Your task to perform on an android device: Search for seafood restaurants on Google Maps Image 0: 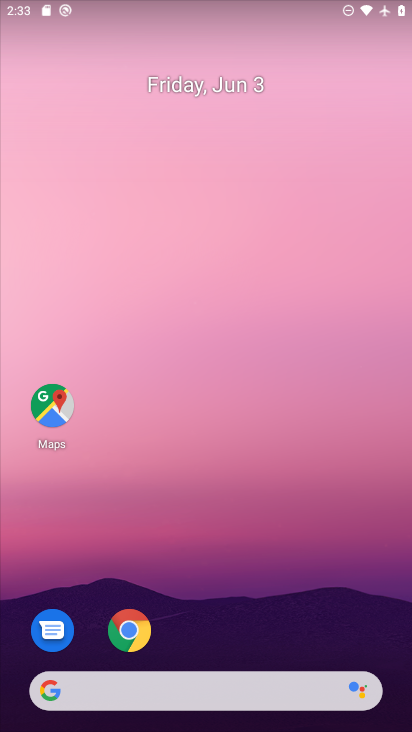
Step 0: drag from (195, 725) to (258, 37)
Your task to perform on an android device: Search for seafood restaurants on Google Maps Image 1: 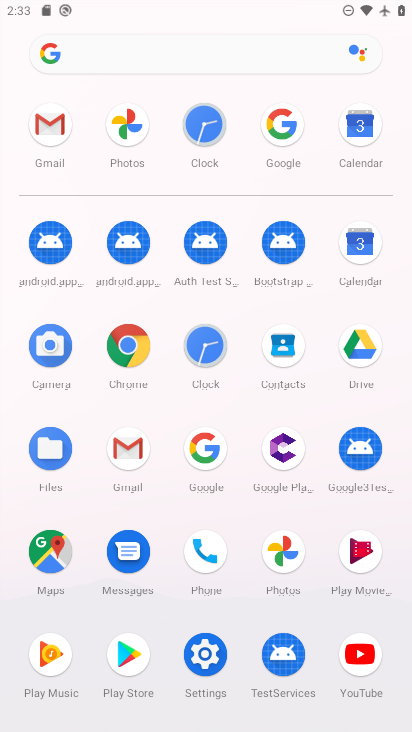
Step 1: click (44, 552)
Your task to perform on an android device: Search for seafood restaurants on Google Maps Image 2: 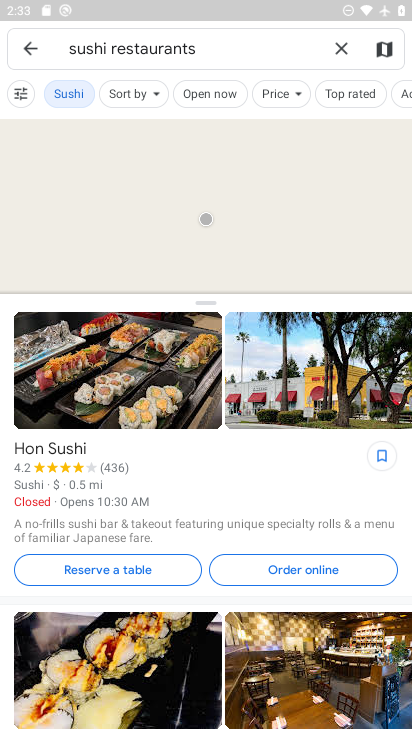
Step 2: click (335, 49)
Your task to perform on an android device: Search for seafood restaurants on Google Maps Image 3: 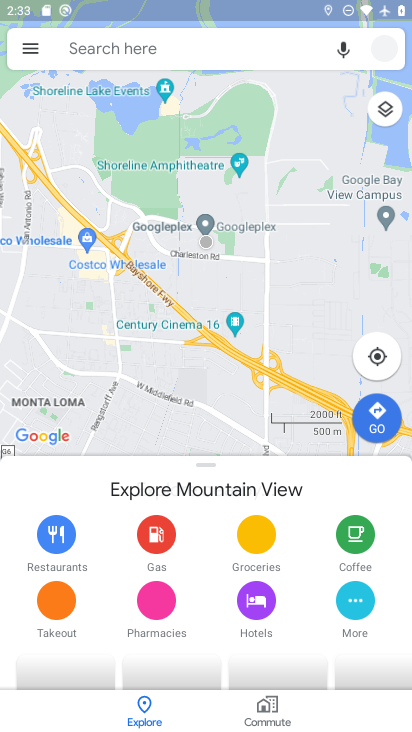
Step 3: click (173, 49)
Your task to perform on an android device: Search for seafood restaurants on Google Maps Image 4: 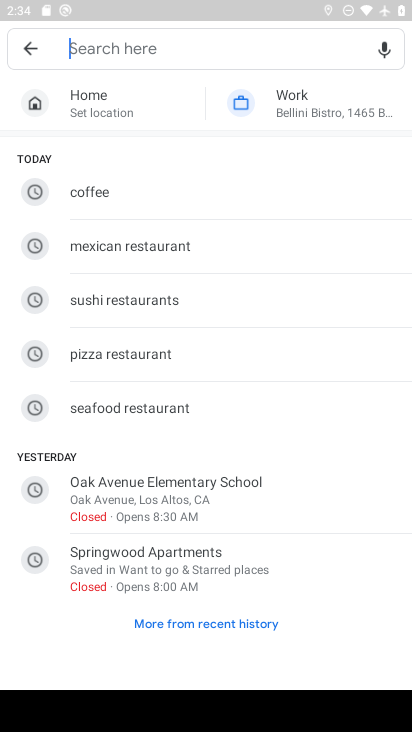
Step 4: type "seafood restaurants"
Your task to perform on an android device: Search for seafood restaurants on Google Maps Image 5: 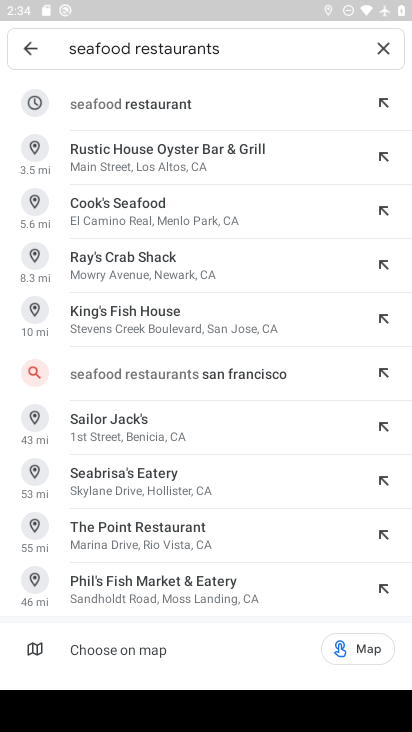
Step 5: click (128, 104)
Your task to perform on an android device: Search for seafood restaurants on Google Maps Image 6: 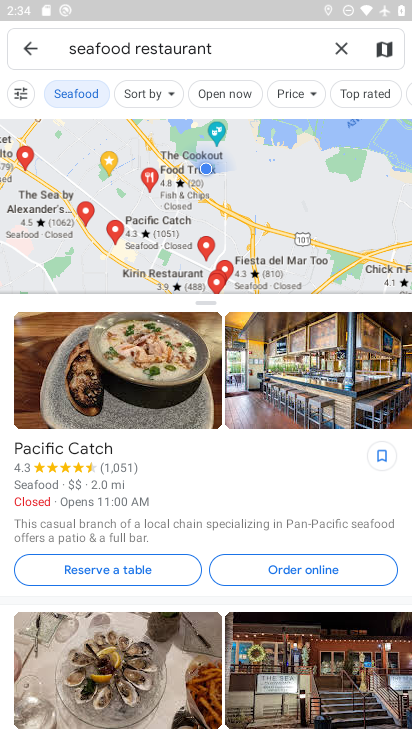
Step 6: task complete